Your task to perform on an android device: Go to display settings Image 0: 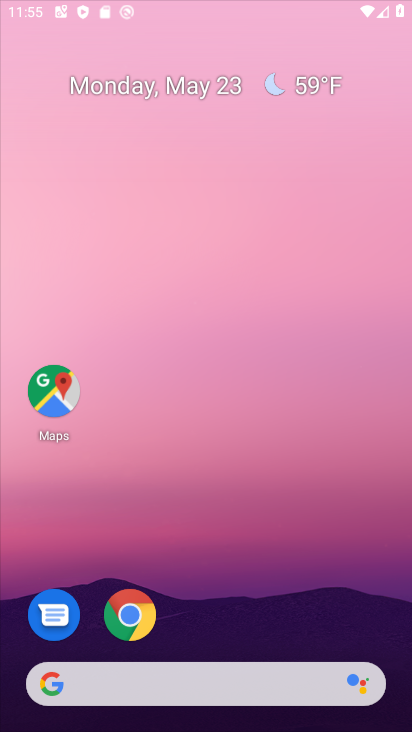
Step 0: drag from (149, 89) to (144, 46)
Your task to perform on an android device: Go to display settings Image 1: 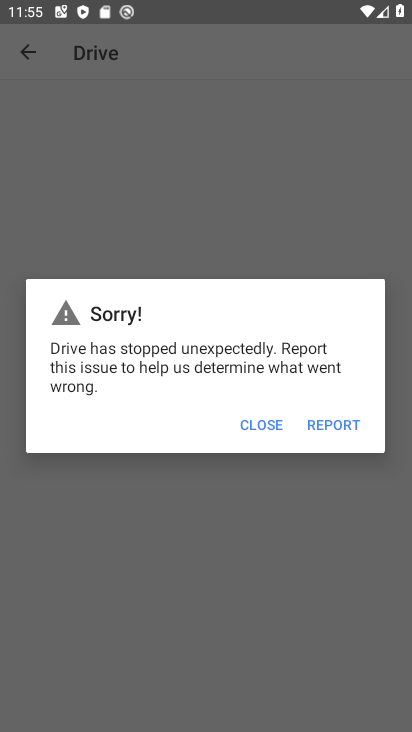
Step 1: press back button
Your task to perform on an android device: Go to display settings Image 2: 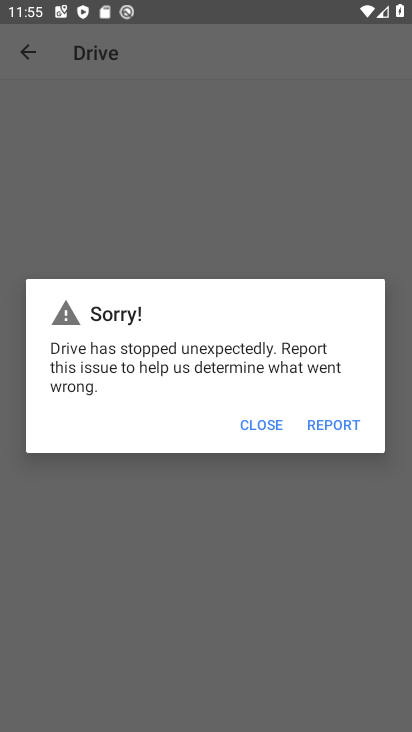
Step 2: press home button
Your task to perform on an android device: Go to display settings Image 3: 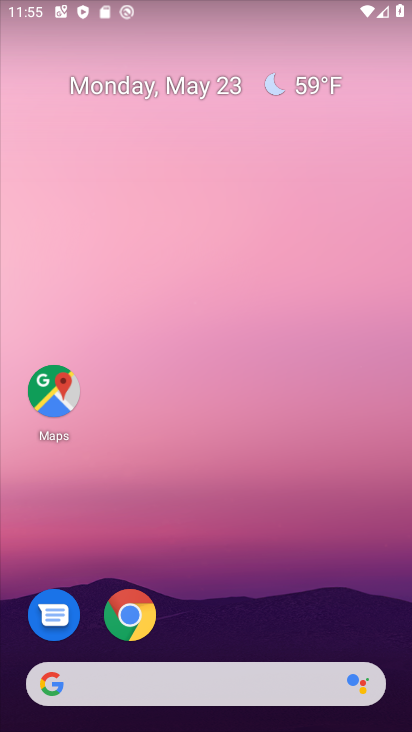
Step 3: drag from (277, 581) to (312, 409)
Your task to perform on an android device: Go to display settings Image 4: 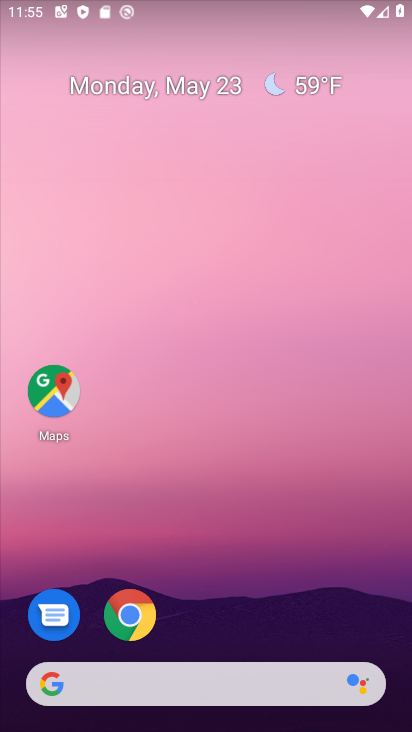
Step 4: drag from (334, 615) to (279, 29)
Your task to perform on an android device: Go to display settings Image 5: 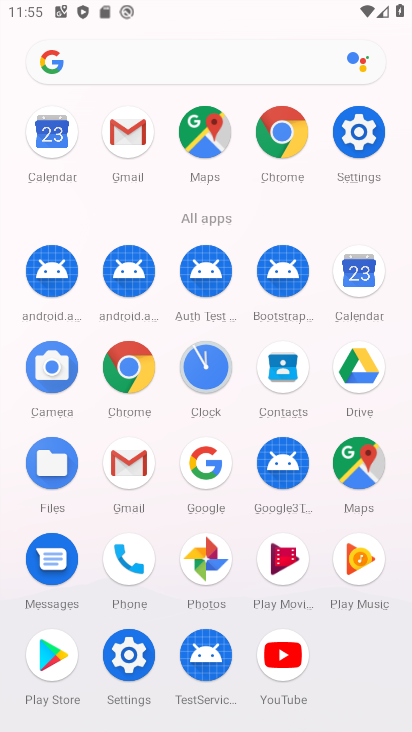
Step 5: click (357, 131)
Your task to perform on an android device: Go to display settings Image 6: 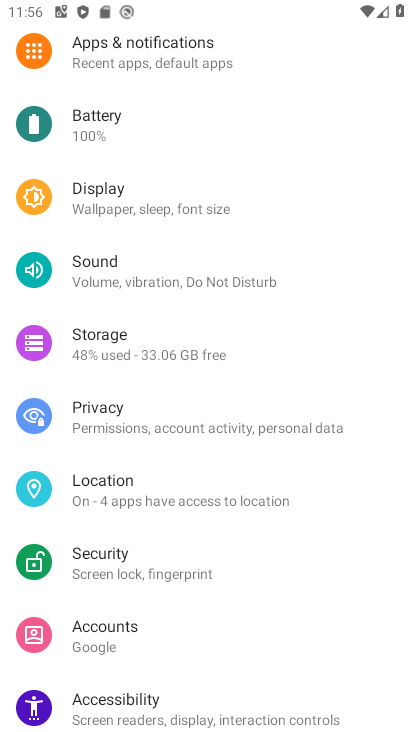
Step 6: drag from (237, 589) to (235, 534)
Your task to perform on an android device: Go to display settings Image 7: 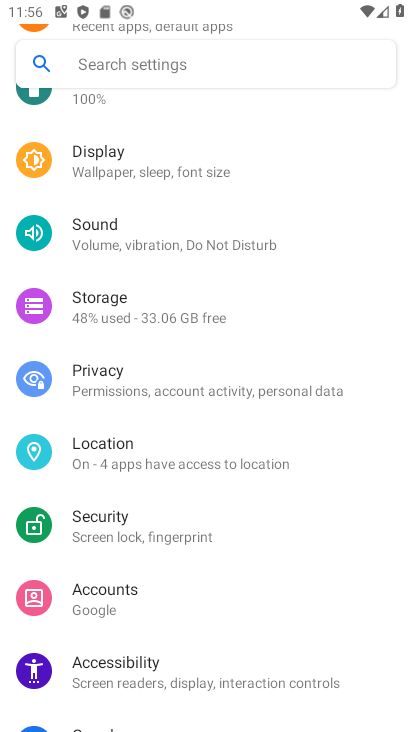
Step 7: click (127, 170)
Your task to perform on an android device: Go to display settings Image 8: 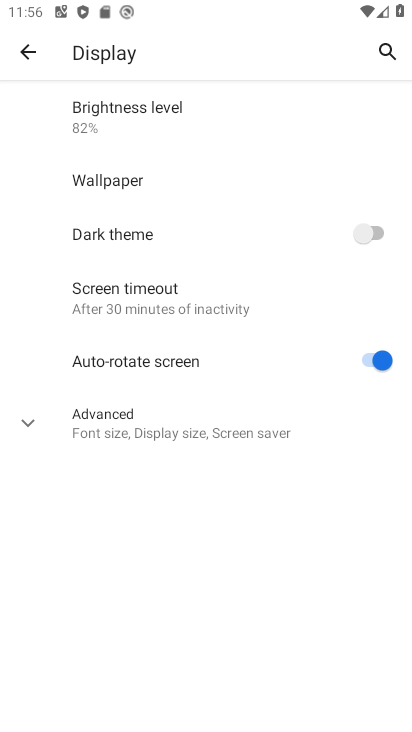
Step 8: click (34, 412)
Your task to perform on an android device: Go to display settings Image 9: 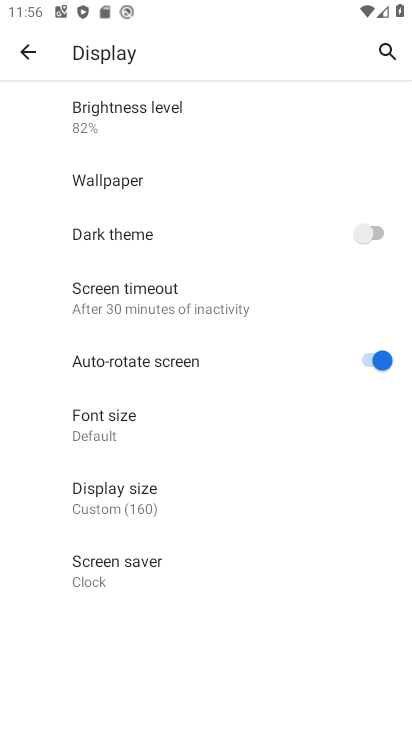
Step 9: task complete